Your task to perform on an android device: Open Google Maps Image 0: 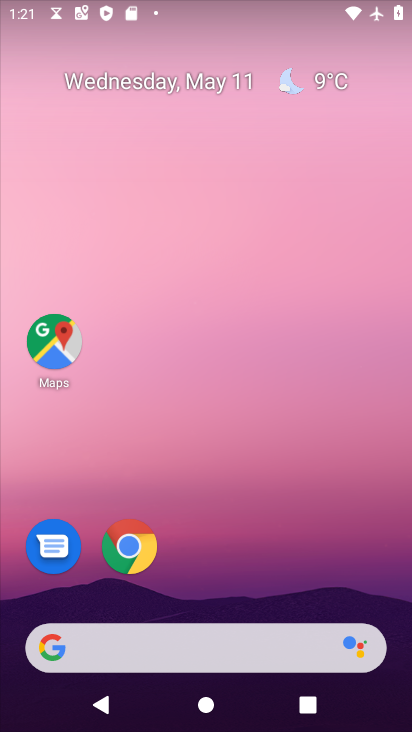
Step 0: drag from (301, 568) to (319, 0)
Your task to perform on an android device: Open Google Maps Image 1: 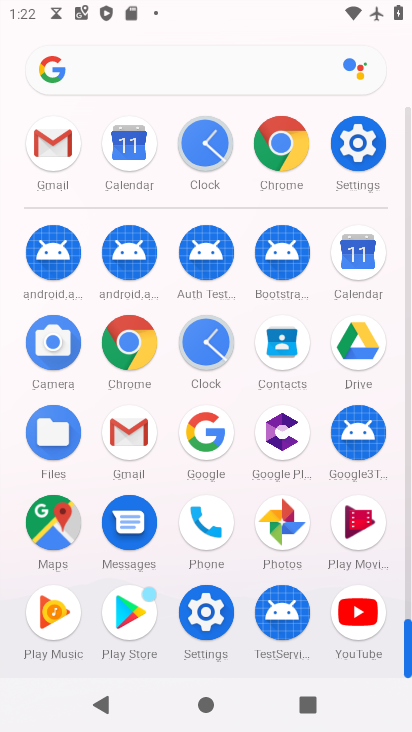
Step 1: click (29, 535)
Your task to perform on an android device: Open Google Maps Image 2: 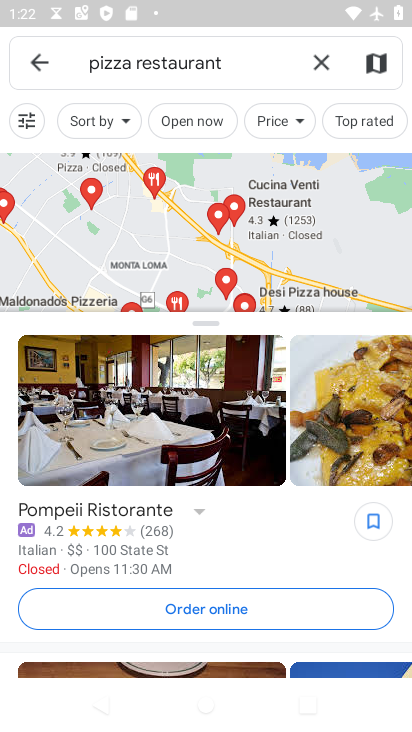
Step 2: task complete